Your task to perform on an android device: change alarm snooze length Image 0: 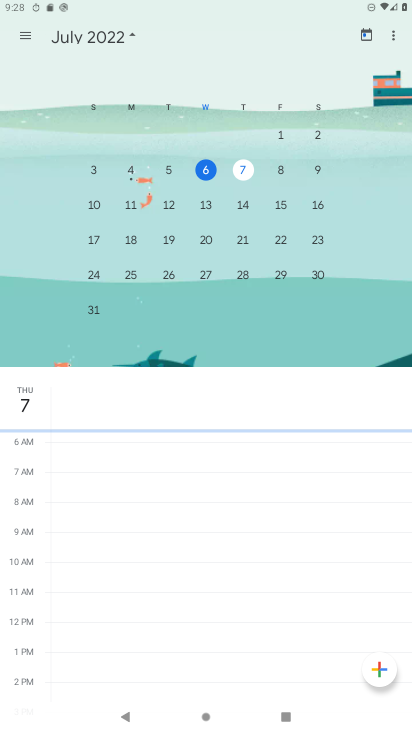
Step 0: press home button
Your task to perform on an android device: change alarm snooze length Image 1: 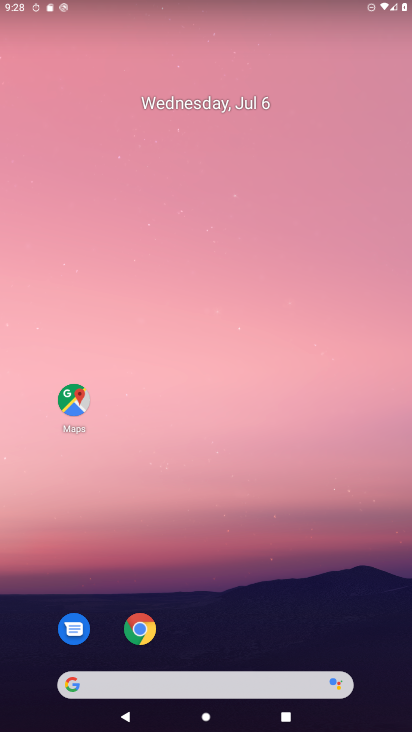
Step 1: drag from (227, 725) to (182, 139)
Your task to perform on an android device: change alarm snooze length Image 2: 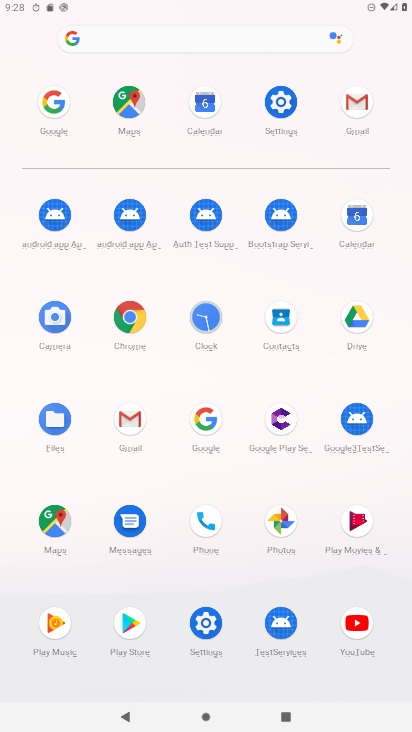
Step 2: click (200, 313)
Your task to perform on an android device: change alarm snooze length Image 3: 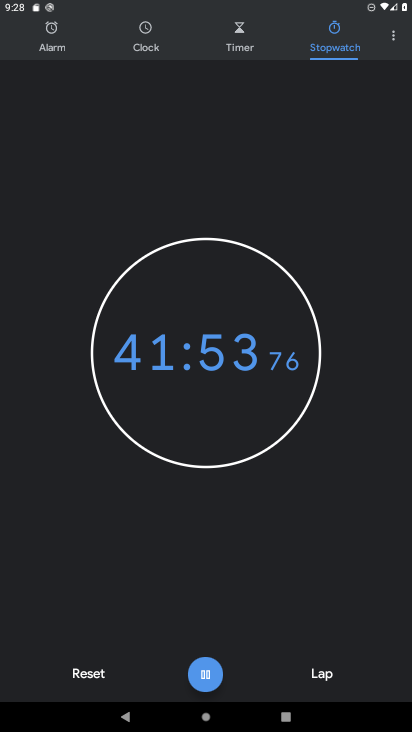
Step 3: click (395, 40)
Your task to perform on an android device: change alarm snooze length Image 4: 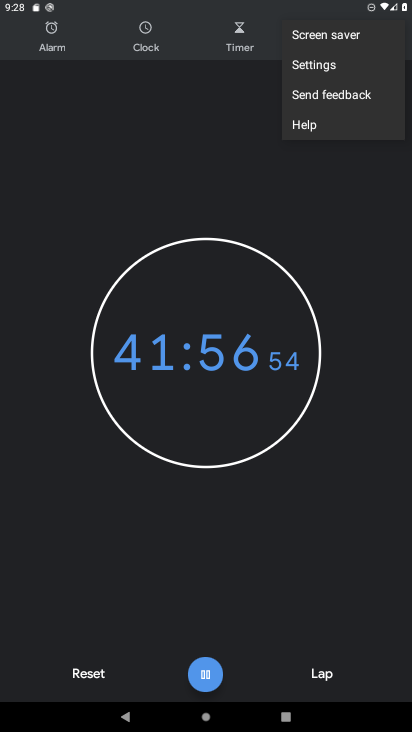
Step 4: click (309, 66)
Your task to perform on an android device: change alarm snooze length Image 5: 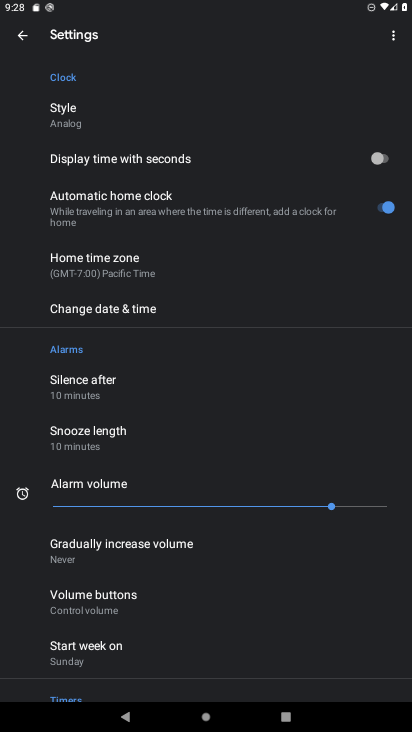
Step 5: click (87, 438)
Your task to perform on an android device: change alarm snooze length Image 6: 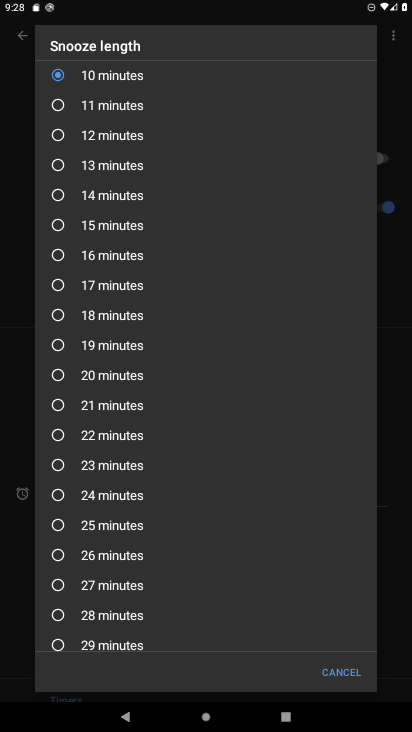
Step 6: click (61, 375)
Your task to perform on an android device: change alarm snooze length Image 7: 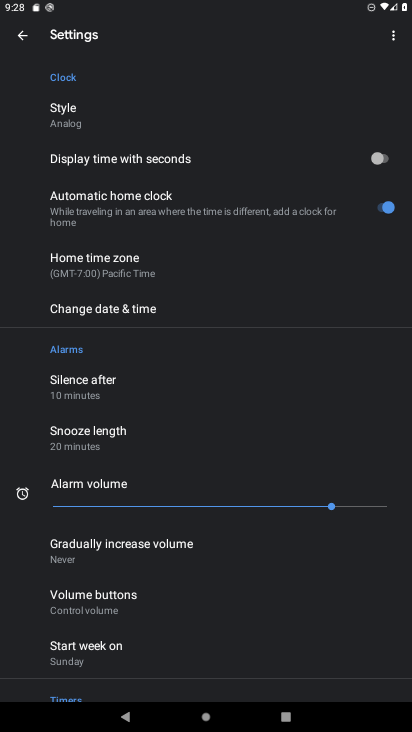
Step 7: task complete